Your task to perform on an android device: Go to calendar. Show me events next week Image 0: 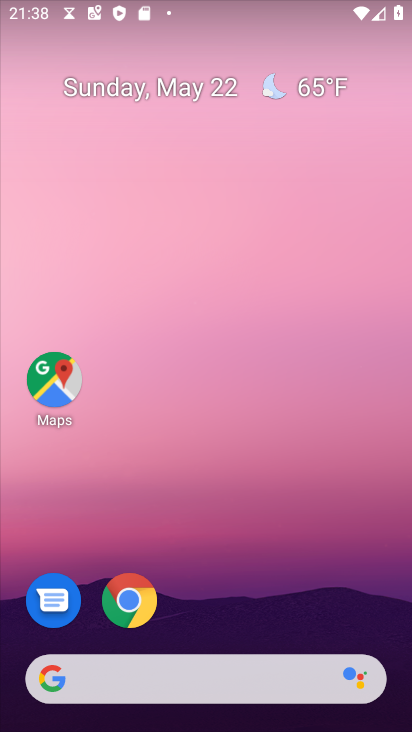
Step 0: drag from (265, 628) to (207, 246)
Your task to perform on an android device: Go to calendar. Show me events next week Image 1: 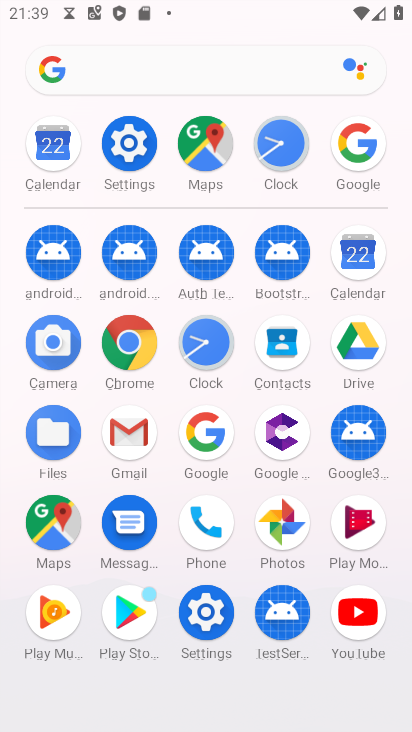
Step 1: click (365, 268)
Your task to perform on an android device: Go to calendar. Show me events next week Image 2: 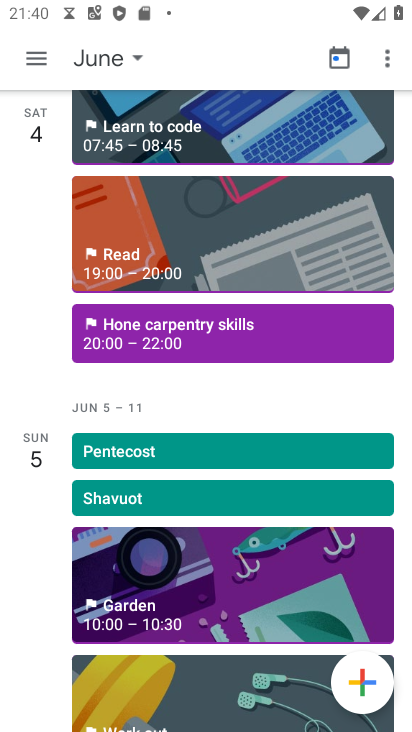
Step 2: click (41, 57)
Your task to perform on an android device: Go to calendar. Show me events next week Image 3: 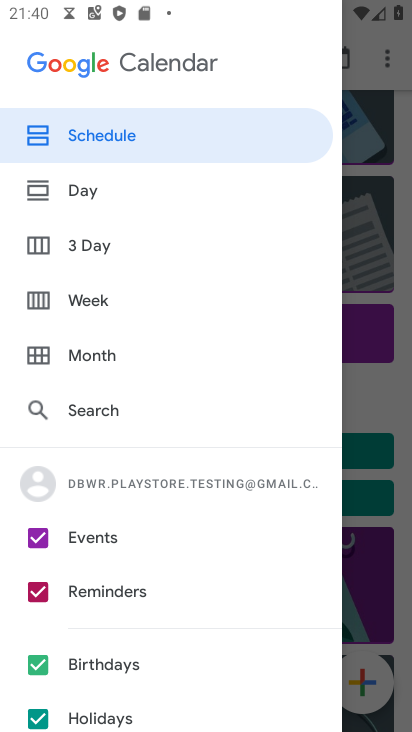
Step 3: press back button
Your task to perform on an android device: Go to calendar. Show me events next week Image 4: 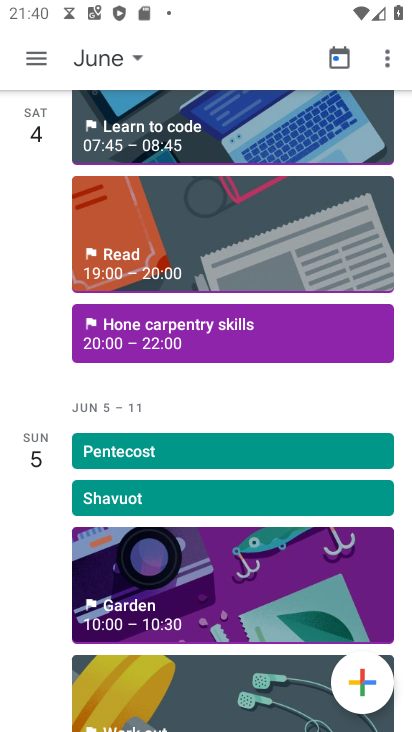
Step 4: click (97, 72)
Your task to perform on an android device: Go to calendar. Show me events next week Image 5: 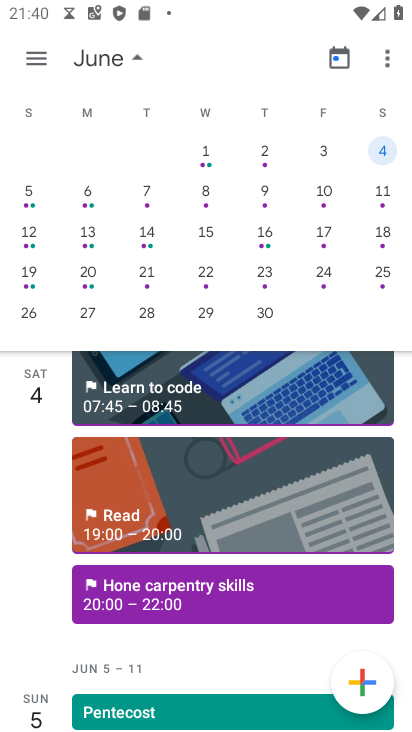
Step 5: click (106, 61)
Your task to perform on an android device: Go to calendar. Show me events next week Image 6: 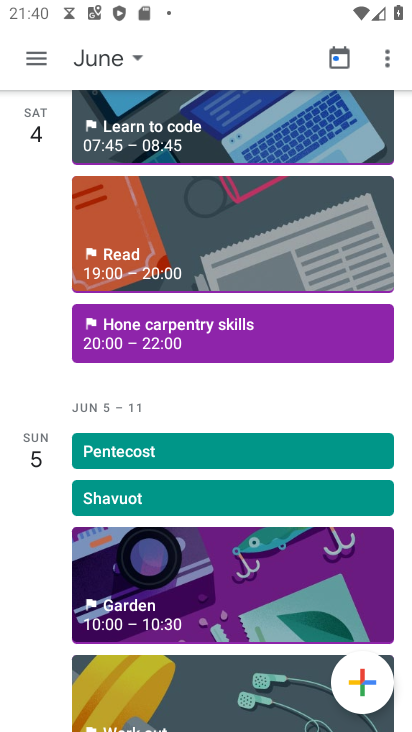
Step 6: click (41, 60)
Your task to perform on an android device: Go to calendar. Show me events next week Image 7: 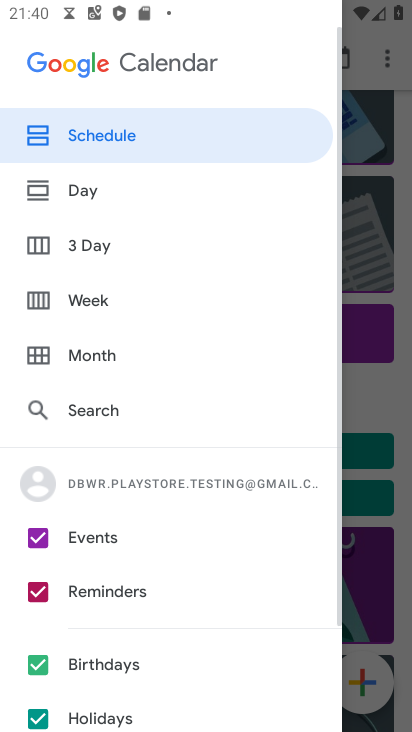
Step 7: click (92, 305)
Your task to perform on an android device: Go to calendar. Show me events next week Image 8: 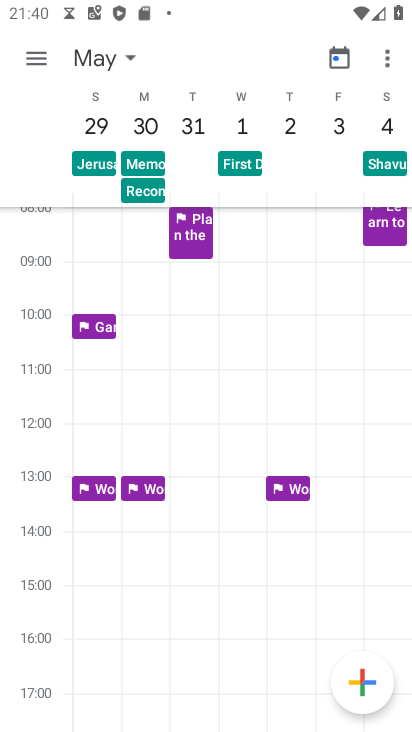
Step 8: click (99, 61)
Your task to perform on an android device: Go to calendar. Show me events next week Image 9: 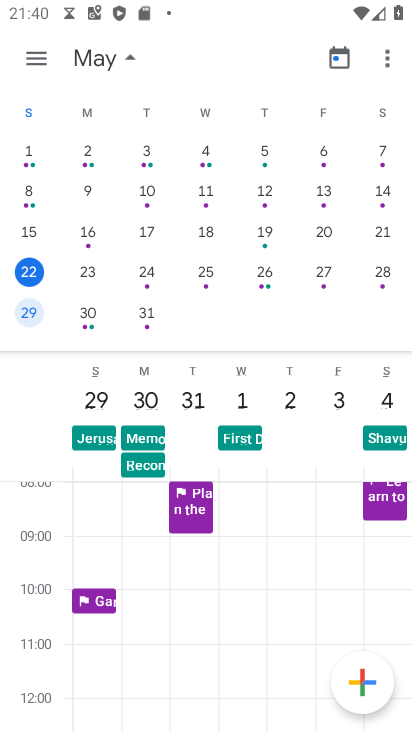
Step 9: click (38, 275)
Your task to perform on an android device: Go to calendar. Show me events next week Image 10: 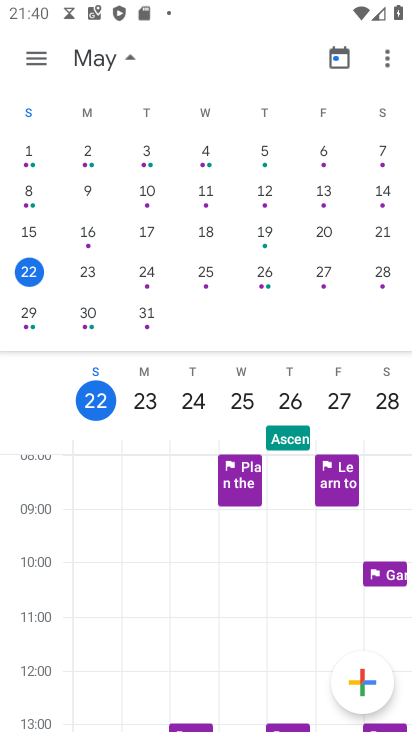
Step 10: click (30, 313)
Your task to perform on an android device: Go to calendar. Show me events next week Image 11: 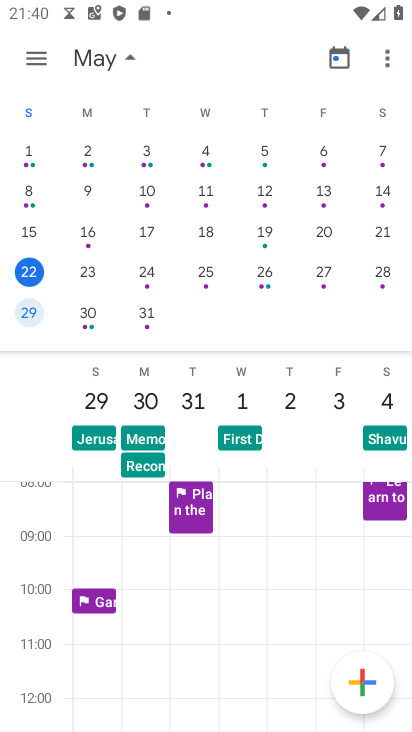
Step 11: task complete